Your task to perform on an android device: Go to Amazon Image 0: 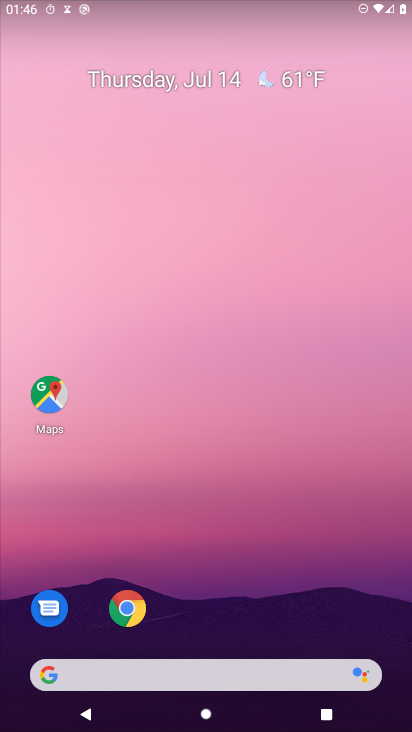
Step 0: press home button
Your task to perform on an android device: Go to Amazon Image 1: 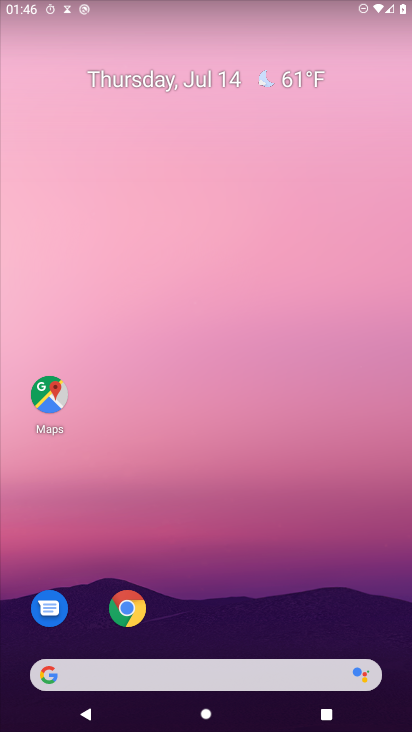
Step 1: click (46, 673)
Your task to perform on an android device: Go to Amazon Image 2: 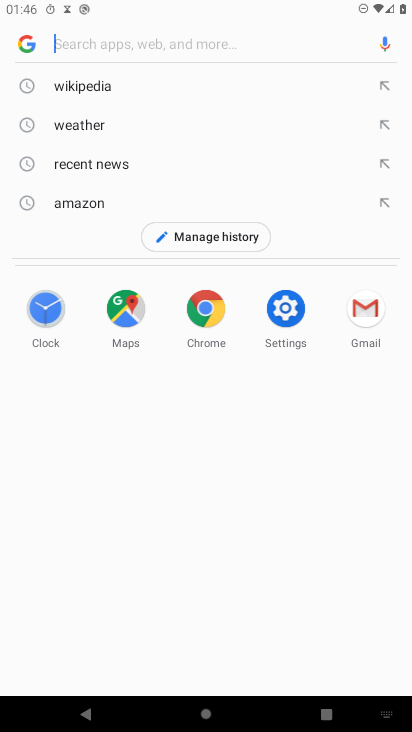
Step 2: click (101, 199)
Your task to perform on an android device: Go to Amazon Image 3: 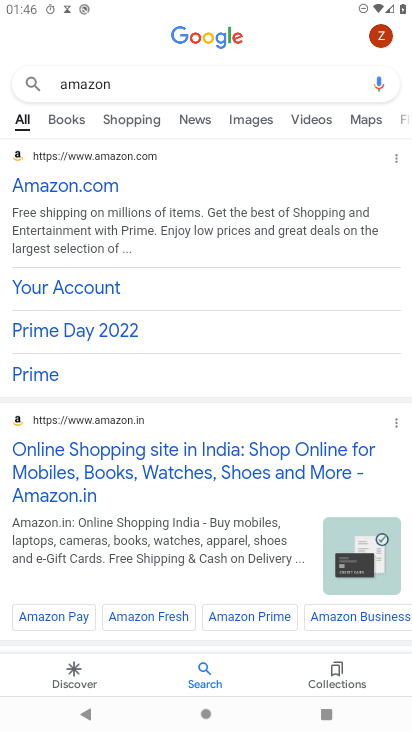
Step 3: click (72, 186)
Your task to perform on an android device: Go to Amazon Image 4: 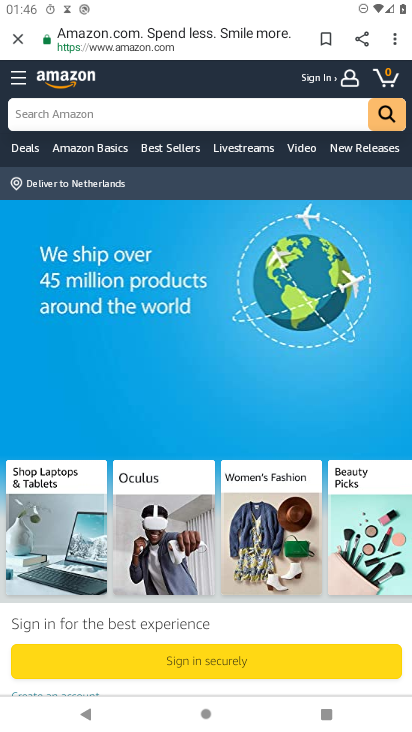
Step 4: task complete